Your task to perform on an android device: What's the weather going to be this weekend? Image 0: 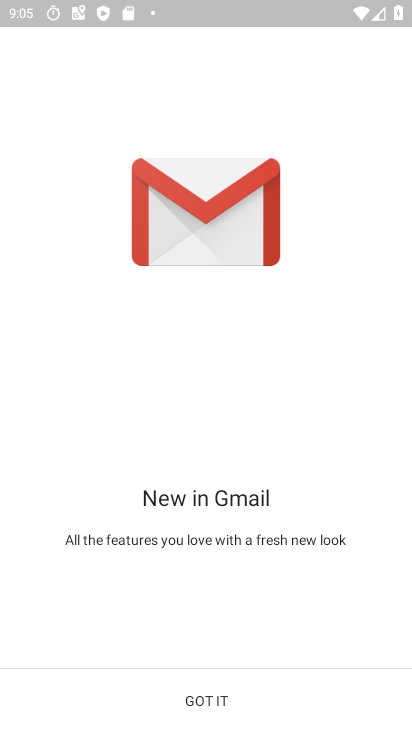
Step 0: press home button
Your task to perform on an android device: What's the weather going to be this weekend? Image 1: 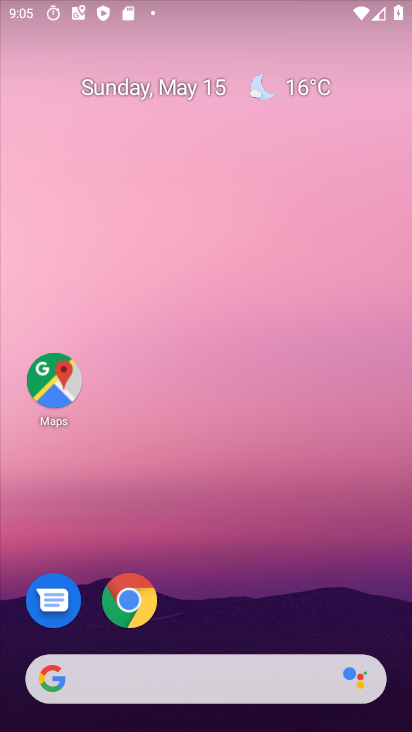
Step 1: drag from (203, 581) to (257, 41)
Your task to perform on an android device: What's the weather going to be this weekend? Image 2: 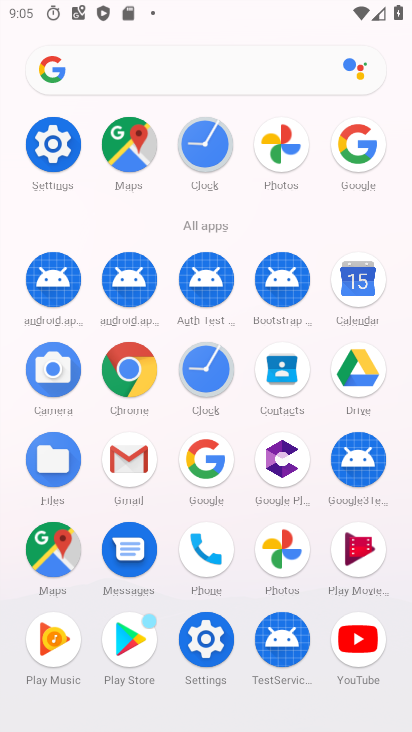
Step 2: click (356, 140)
Your task to perform on an android device: What's the weather going to be this weekend? Image 3: 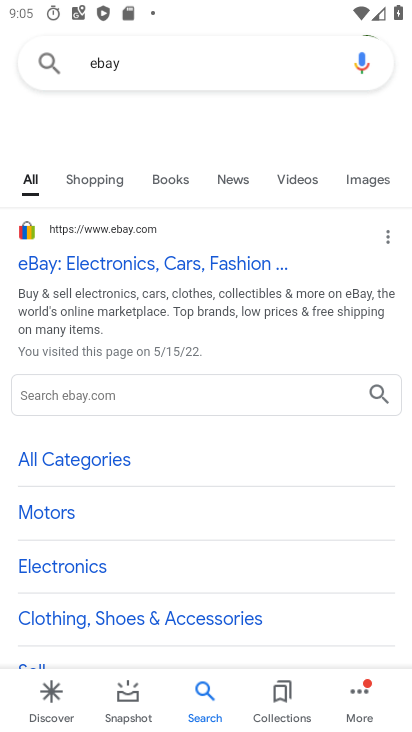
Step 3: click (202, 65)
Your task to perform on an android device: What's the weather going to be this weekend? Image 4: 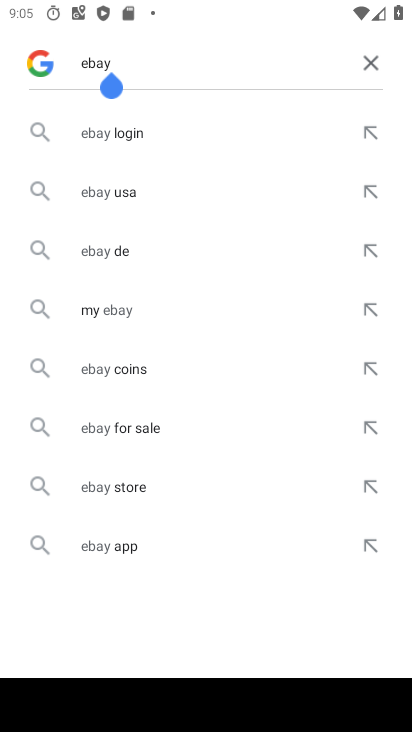
Step 4: click (371, 61)
Your task to perform on an android device: What's the weather going to be this weekend? Image 5: 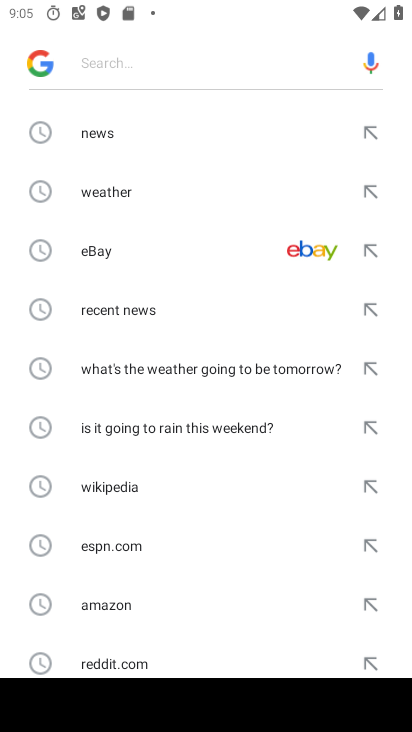
Step 5: type "weather going to be this weekend"
Your task to perform on an android device: What's the weather going to be this weekend? Image 6: 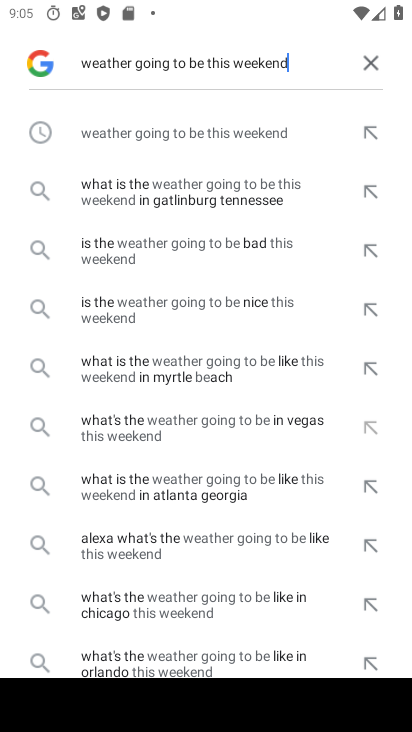
Step 6: click (197, 131)
Your task to perform on an android device: What's the weather going to be this weekend? Image 7: 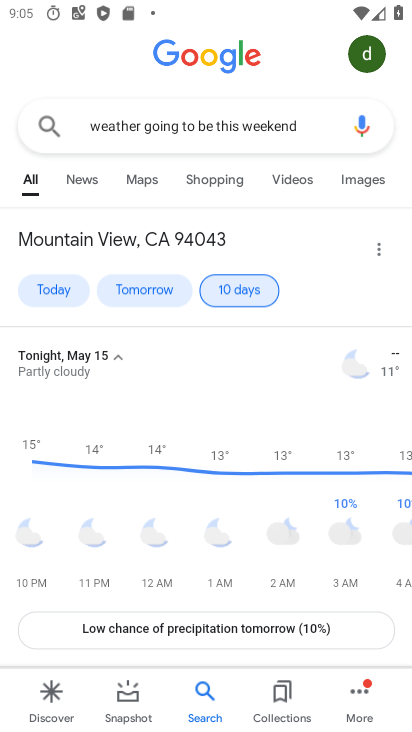
Step 7: task complete